Your task to perform on an android device: toggle improve location accuracy Image 0: 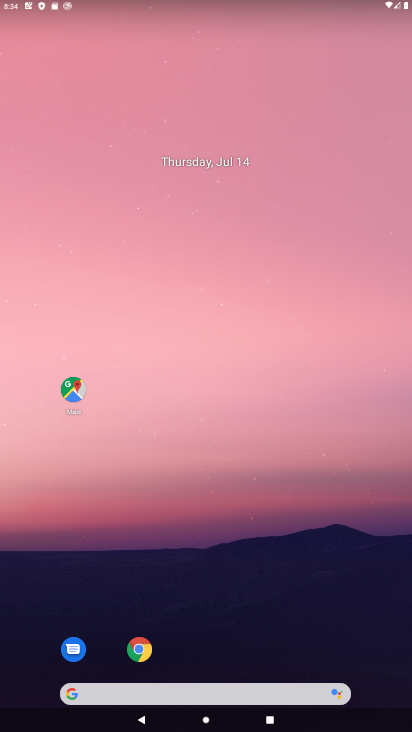
Step 0: drag from (173, 603) to (240, 104)
Your task to perform on an android device: toggle improve location accuracy Image 1: 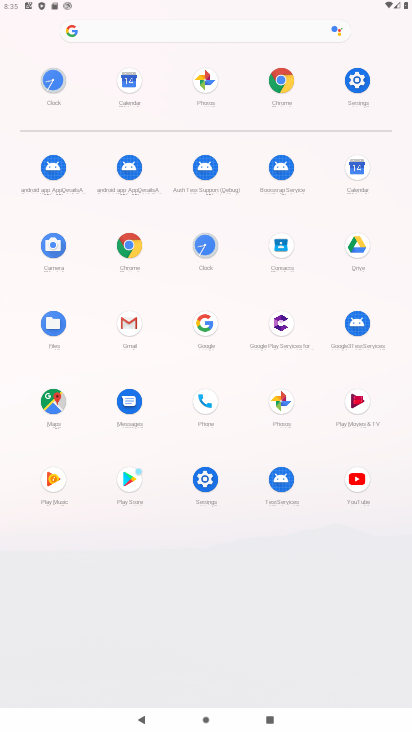
Step 1: click (356, 85)
Your task to perform on an android device: toggle improve location accuracy Image 2: 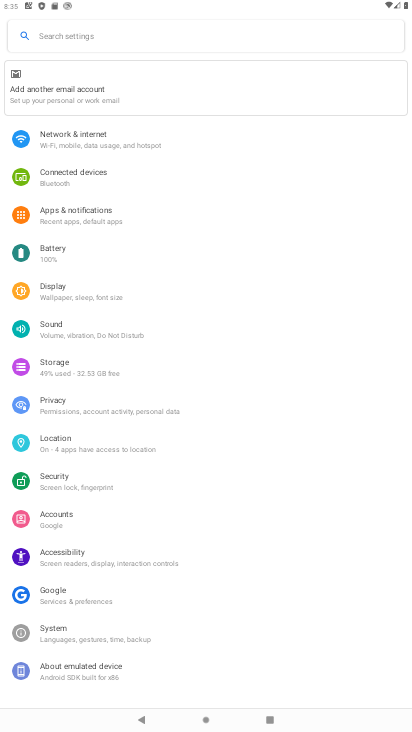
Step 2: click (50, 441)
Your task to perform on an android device: toggle improve location accuracy Image 3: 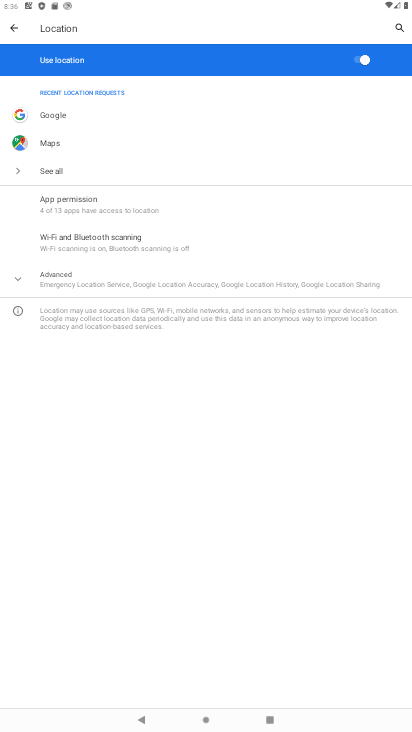
Step 3: click (98, 286)
Your task to perform on an android device: toggle improve location accuracy Image 4: 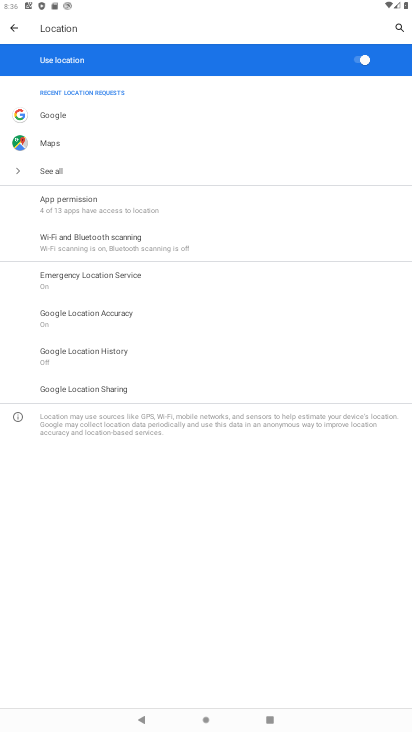
Step 4: click (111, 312)
Your task to perform on an android device: toggle improve location accuracy Image 5: 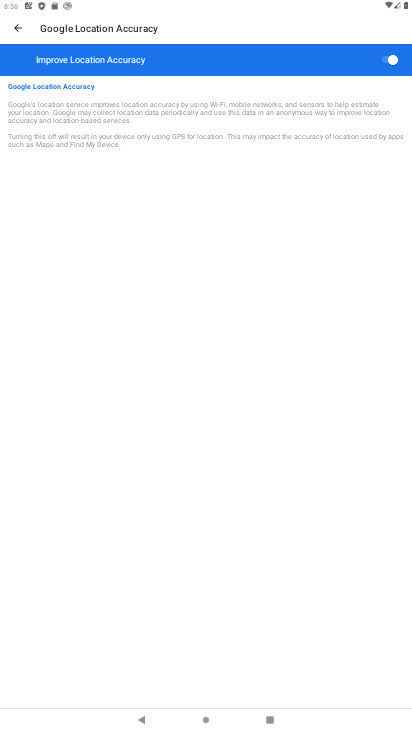
Step 5: click (395, 58)
Your task to perform on an android device: toggle improve location accuracy Image 6: 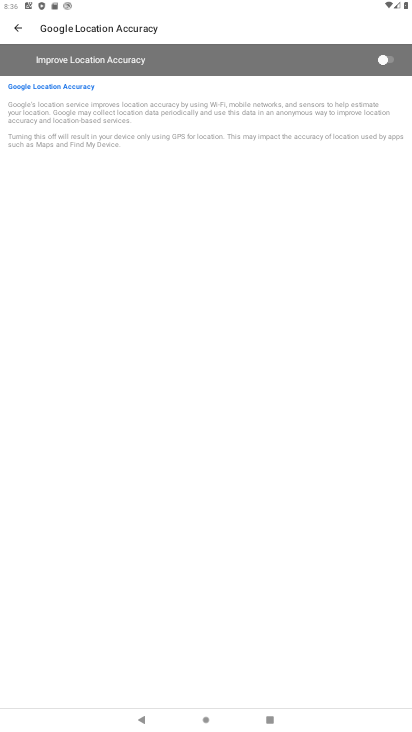
Step 6: task complete